Your task to perform on an android device: Do I have any events tomorrow? Image 0: 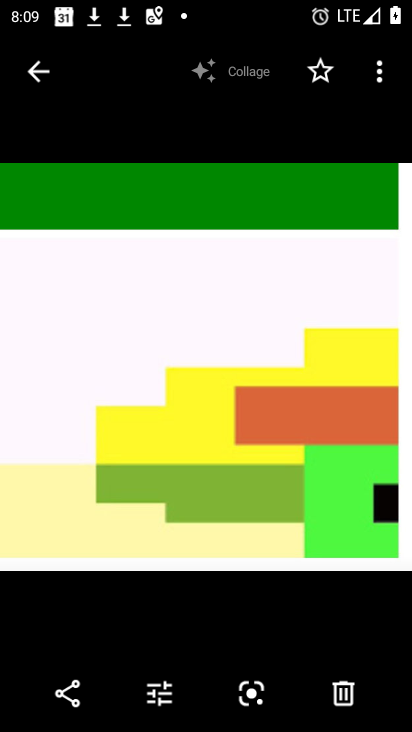
Step 0: press home button
Your task to perform on an android device: Do I have any events tomorrow? Image 1: 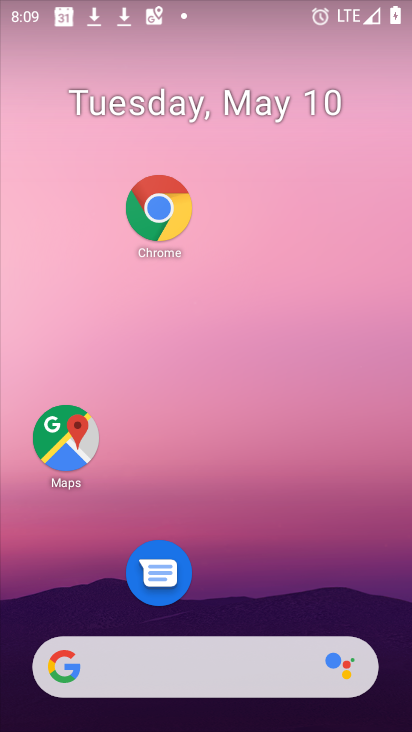
Step 1: drag from (231, 692) to (307, 314)
Your task to perform on an android device: Do I have any events tomorrow? Image 2: 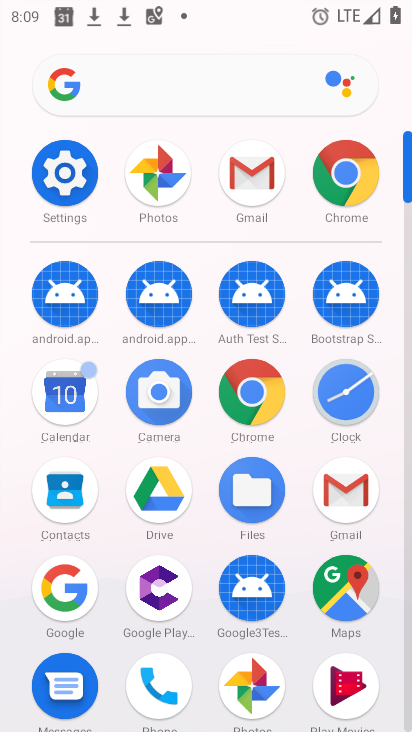
Step 2: click (142, 105)
Your task to perform on an android device: Do I have any events tomorrow? Image 3: 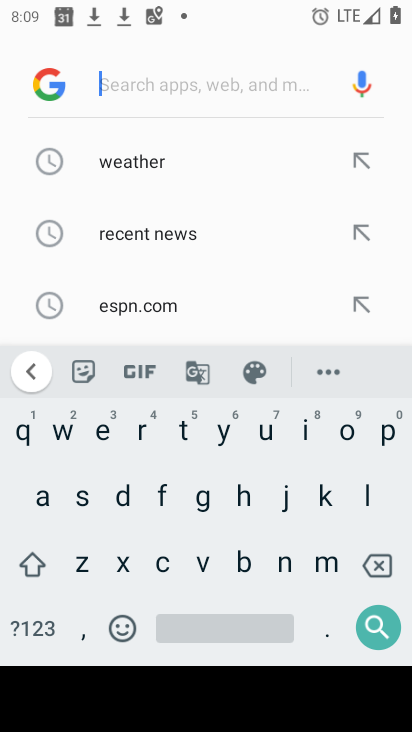
Step 3: press home button
Your task to perform on an android device: Do I have any events tomorrow? Image 4: 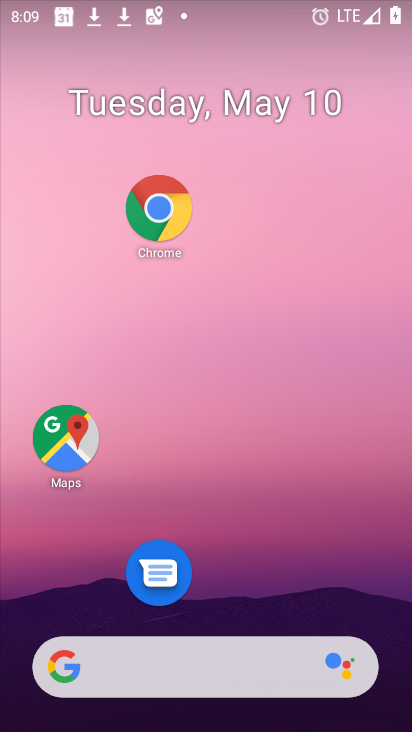
Step 4: drag from (262, 695) to (345, 314)
Your task to perform on an android device: Do I have any events tomorrow? Image 5: 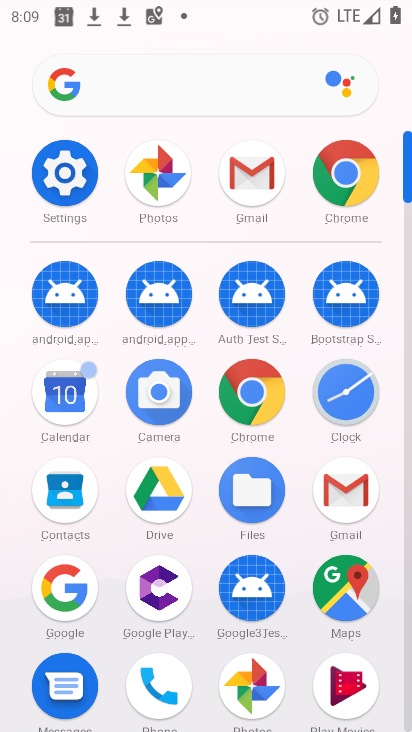
Step 5: click (65, 389)
Your task to perform on an android device: Do I have any events tomorrow? Image 6: 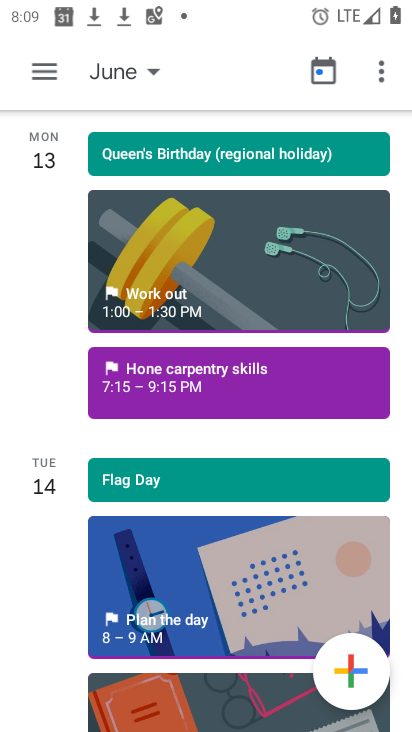
Step 6: click (48, 74)
Your task to perform on an android device: Do I have any events tomorrow? Image 7: 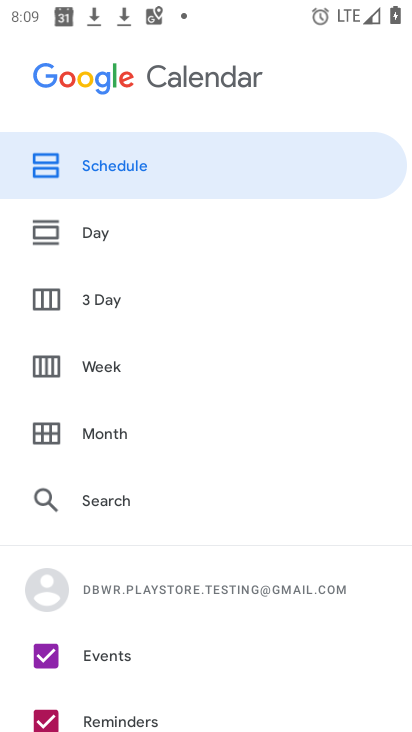
Step 7: click (106, 429)
Your task to perform on an android device: Do I have any events tomorrow? Image 8: 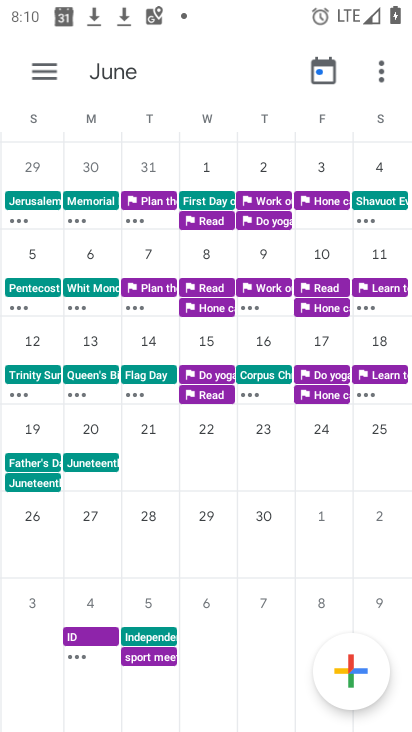
Step 8: drag from (49, 333) to (394, 220)
Your task to perform on an android device: Do I have any events tomorrow? Image 9: 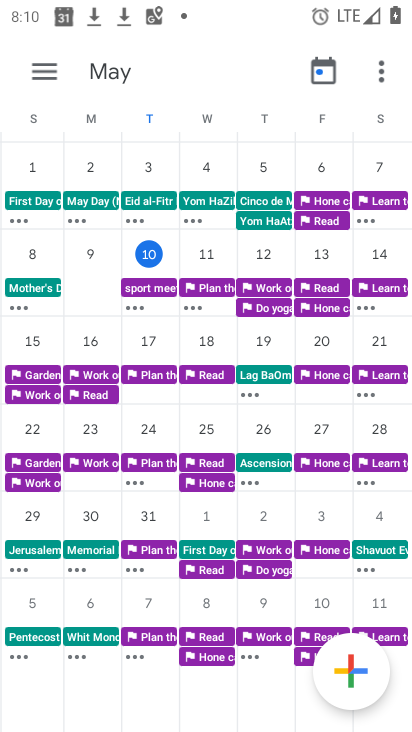
Step 9: click (150, 259)
Your task to perform on an android device: Do I have any events tomorrow? Image 10: 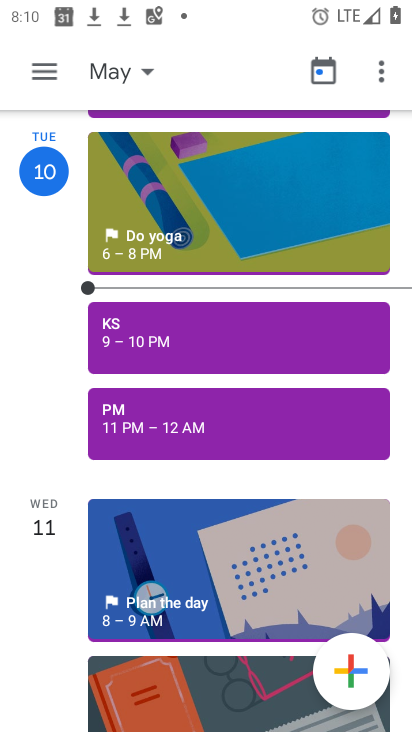
Step 10: task complete